Your task to perform on an android device: Go to notification settings Image 0: 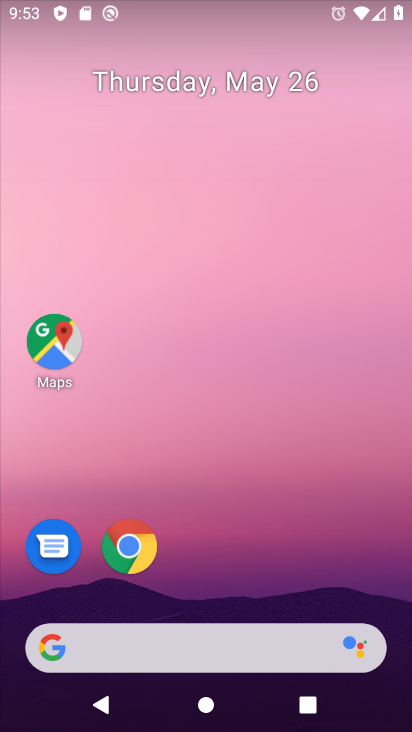
Step 0: drag from (273, 572) to (212, 262)
Your task to perform on an android device: Go to notification settings Image 1: 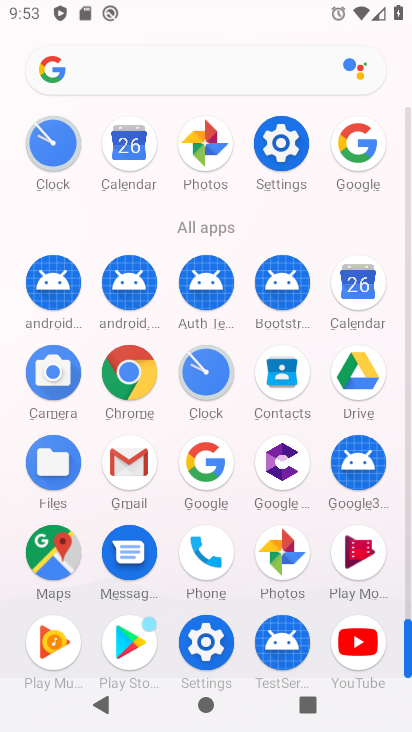
Step 1: click (209, 642)
Your task to perform on an android device: Go to notification settings Image 2: 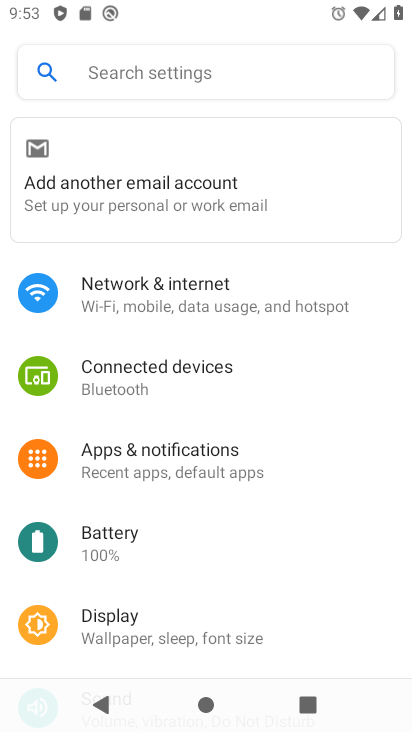
Step 2: drag from (155, 501) to (170, 451)
Your task to perform on an android device: Go to notification settings Image 3: 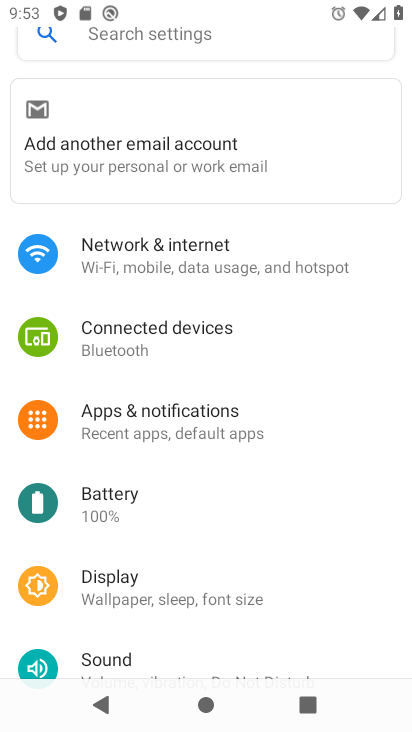
Step 3: click (174, 417)
Your task to perform on an android device: Go to notification settings Image 4: 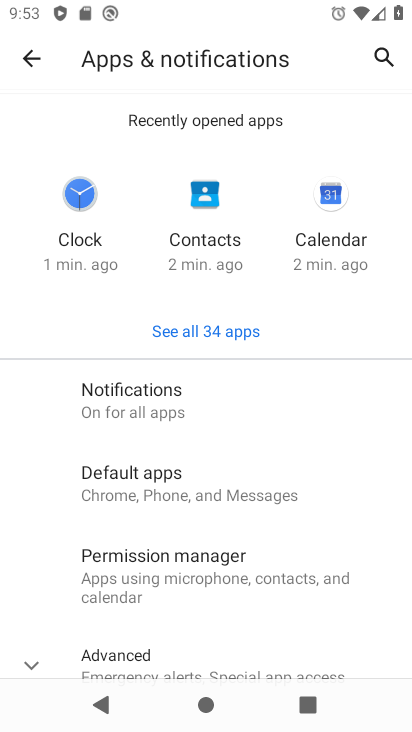
Step 4: click (153, 404)
Your task to perform on an android device: Go to notification settings Image 5: 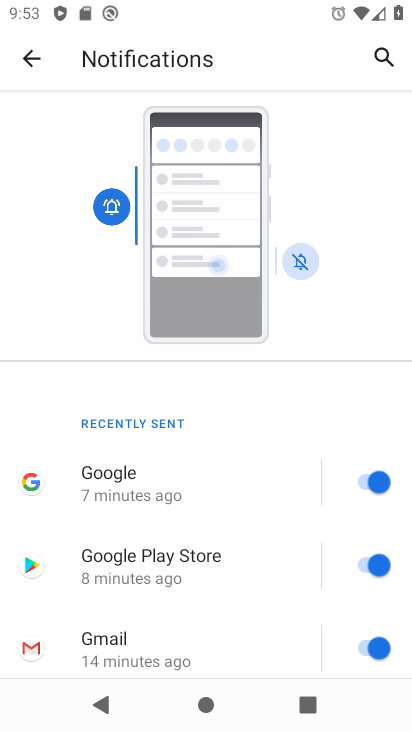
Step 5: task complete